Your task to perform on an android device: Search for vegetarian restaurants on Maps Image 0: 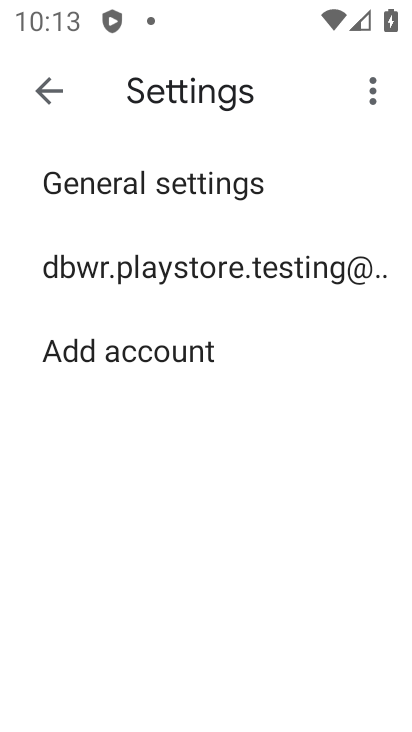
Step 0: press home button
Your task to perform on an android device: Search for vegetarian restaurants on Maps Image 1: 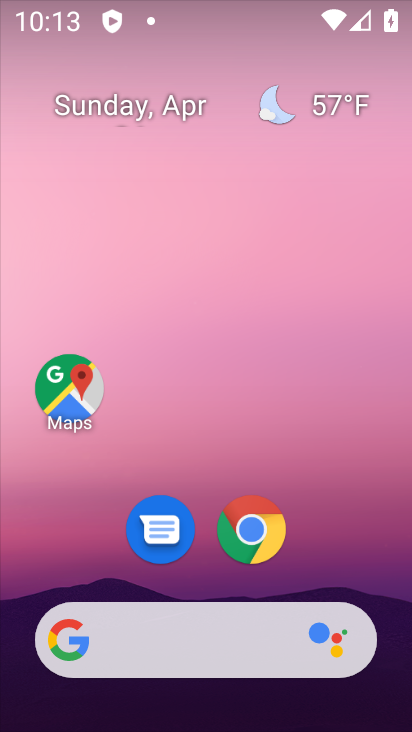
Step 1: click (75, 391)
Your task to perform on an android device: Search for vegetarian restaurants on Maps Image 2: 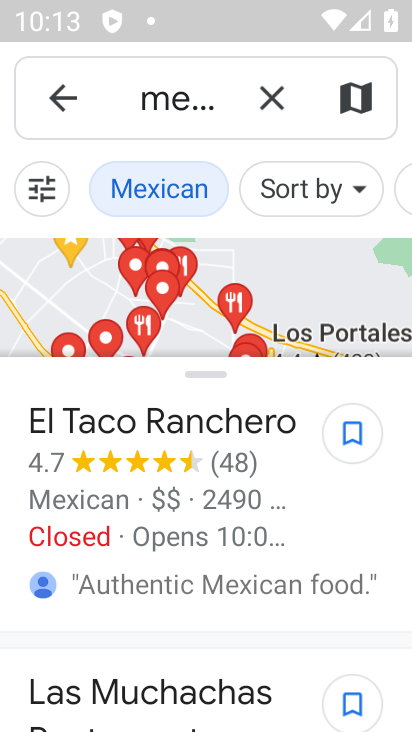
Step 2: click (266, 101)
Your task to perform on an android device: Search for vegetarian restaurants on Maps Image 3: 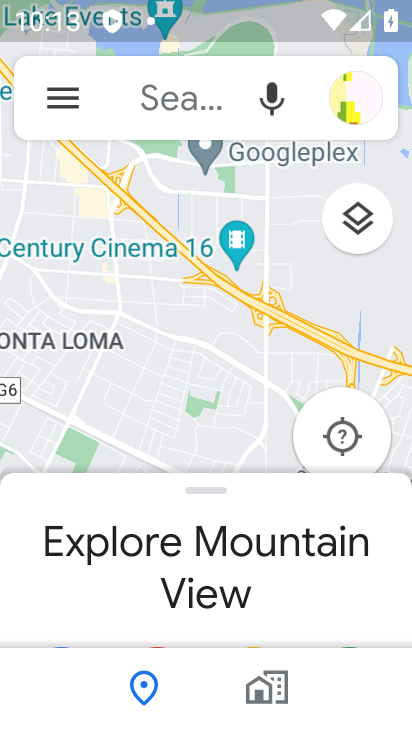
Step 3: click (178, 92)
Your task to perform on an android device: Search for vegetarian restaurants on Maps Image 4: 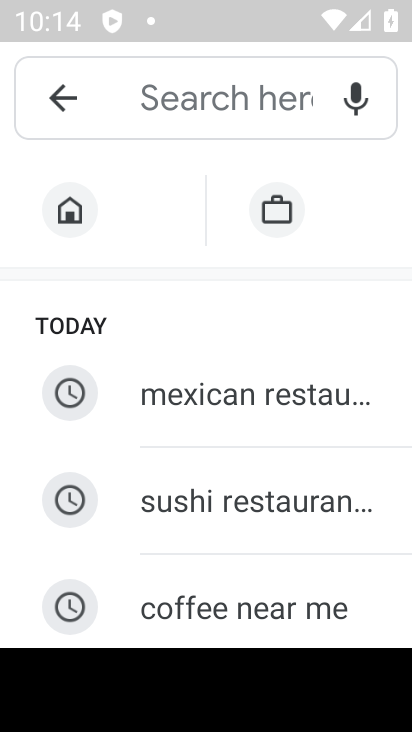
Step 4: type "vegetarian restauratns"
Your task to perform on an android device: Search for vegetarian restaurants on Maps Image 5: 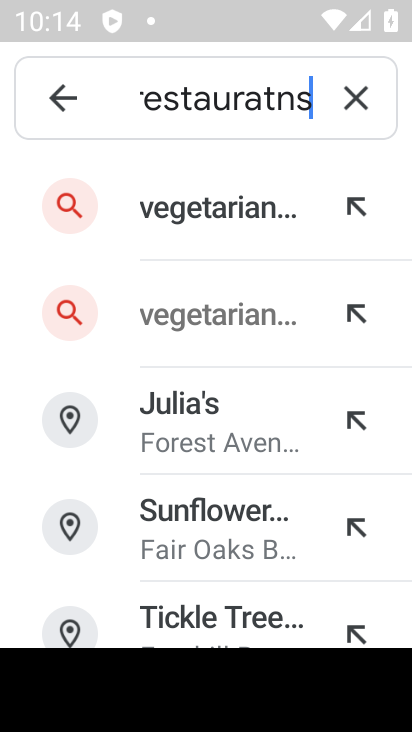
Step 5: click (248, 195)
Your task to perform on an android device: Search for vegetarian restaurants on Maps Image 6: 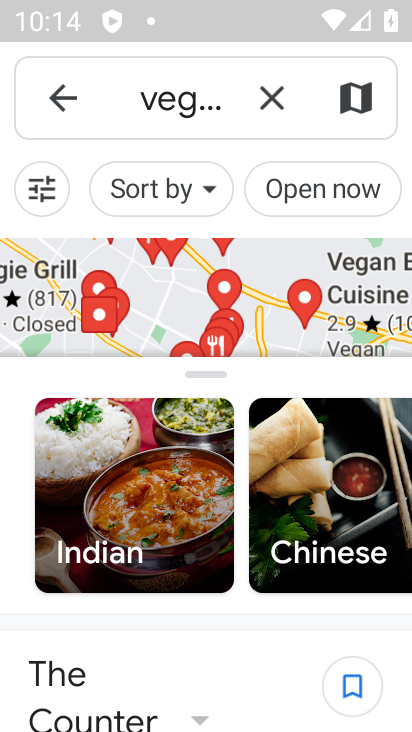
Step 6: task complete